Your task to perform on an android device: toggle translation in the chrome app Image 0: 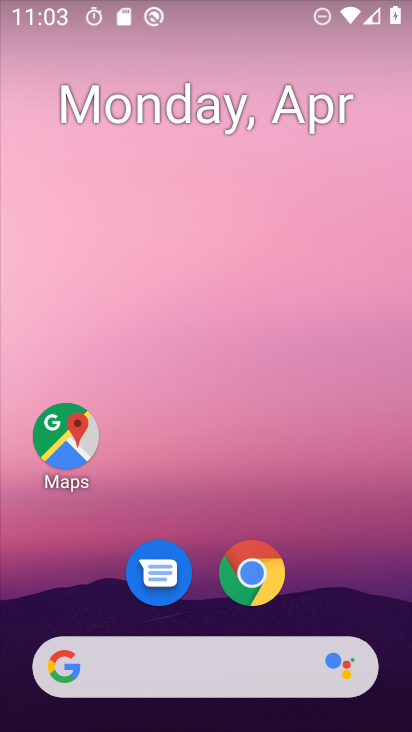
Step 0: drag from (371, 518) to (279, 33)
Your task to perform on an android device: toggle translation in the chrome app Image 1: 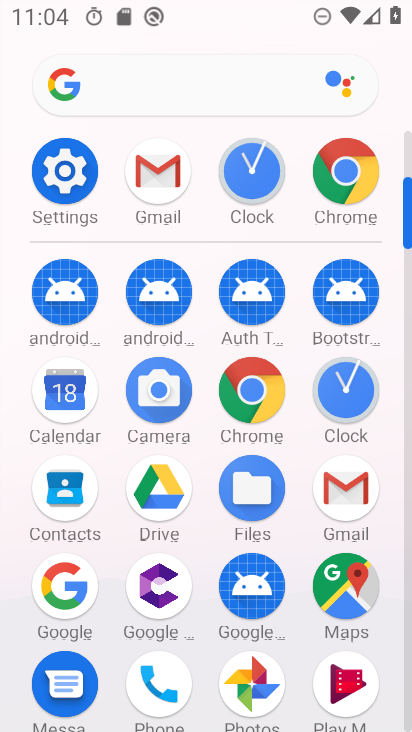
Step 1: click (341, 182)
Your task to perform on an android device: toggle translation in the chrome app Image 2: 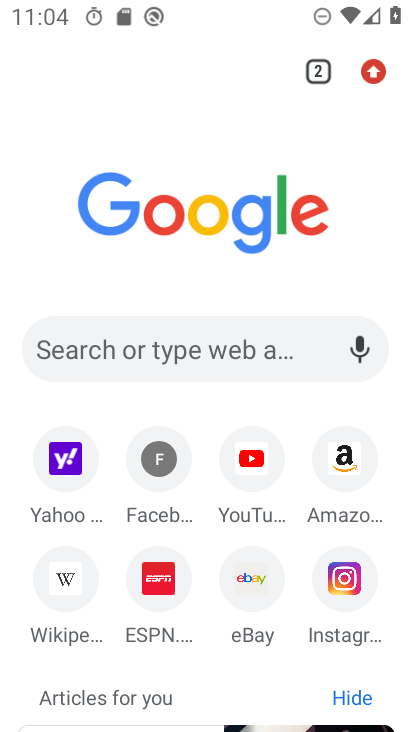
Step 2: click (372, 72)
Your task to perform on an android device: toggle translation in the chrome app Image 3: 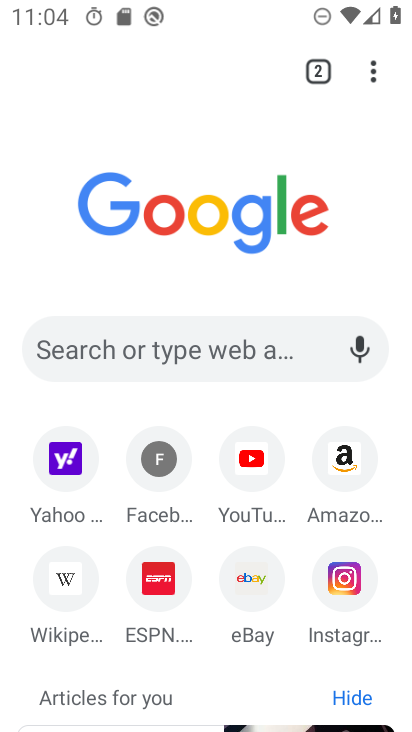
Step 3: click (373, 71)
Your task to perform on an android device: toggle translation in the chrome app Image 4: 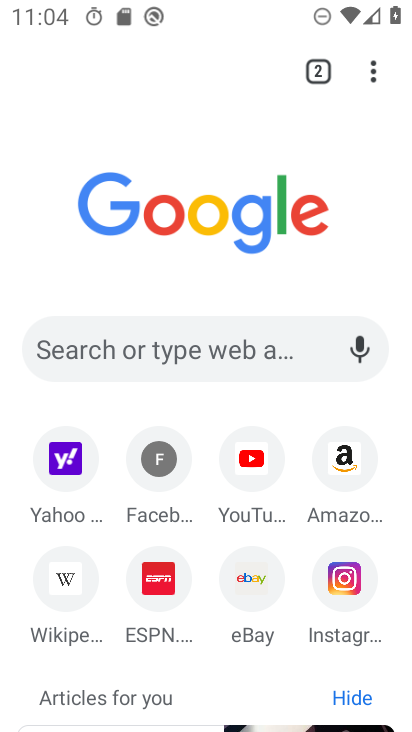
Step 4: click (373, 71)
Your task to perform on an android device: toggle translation in the chrome app Image 5: 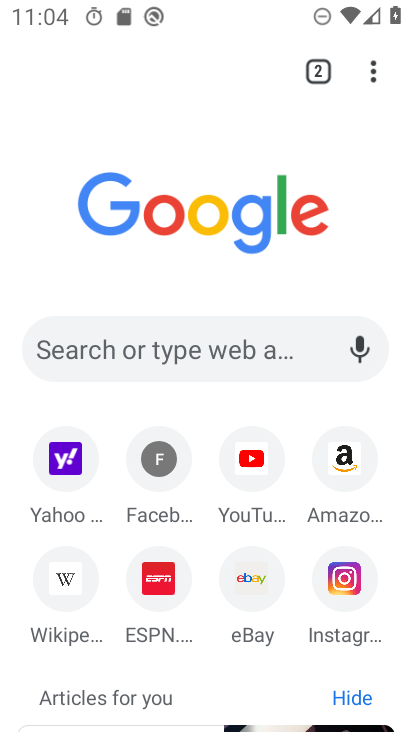
Step 5: click (368, 62)
Your task to perform on an android device: toggle translation in the chrome app Image 6: 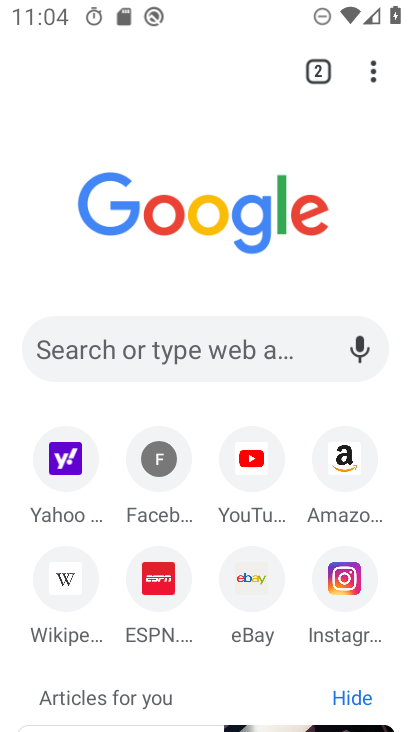
Step 6: click (368, 62)
Your task to perform on an android device: toggle translation in the chrome app Image 7: 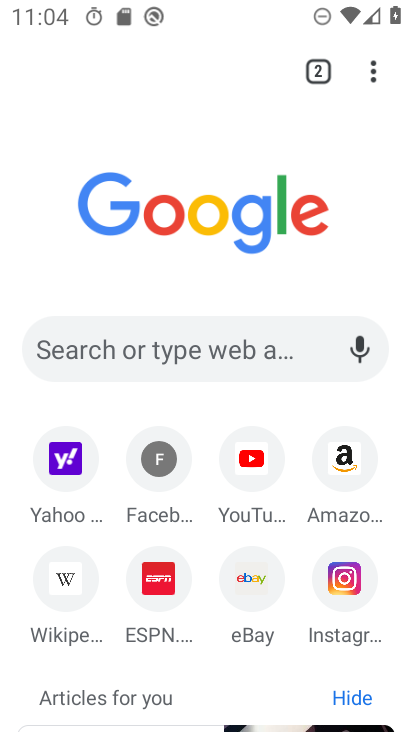
Step 7: click (368, 61)
Your task to perform on an android device: toggle translation in the chrome app Image 8: 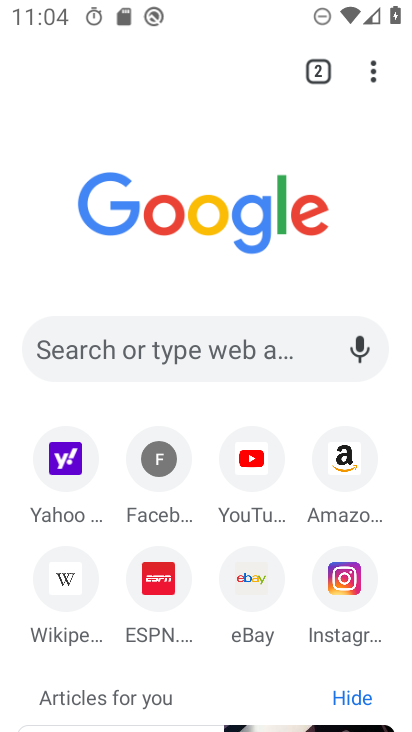
Step 8: click (368, 61)
Your task to perform on an android device: toggle translation in the chrome app Image 9: 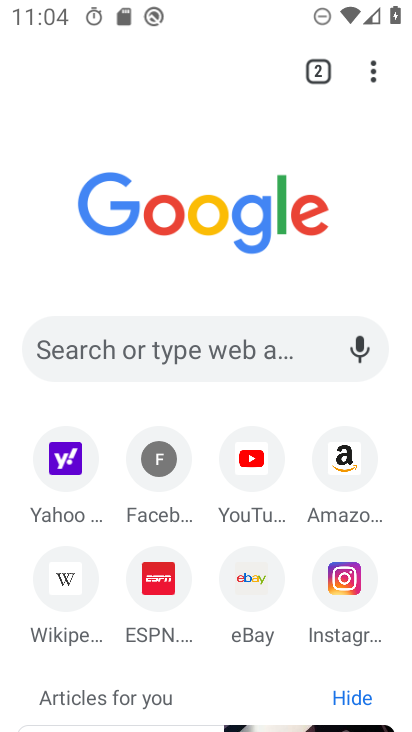
Step 9: click (368, 61)
Your task to perform on an android device: toggle translation in the chrome app Image 10: 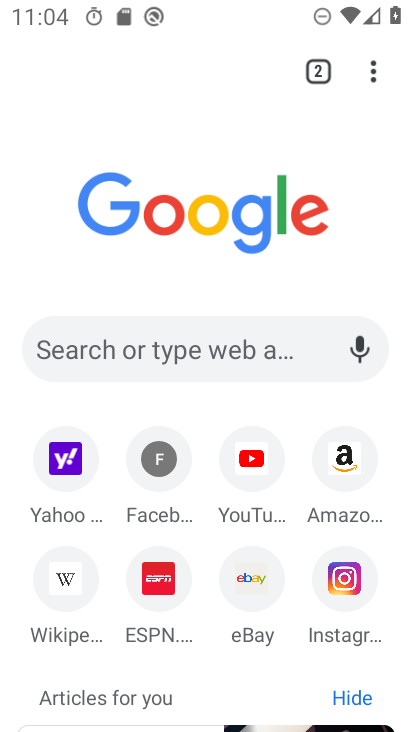
Step 10: click (368, 61)
Your task to perform on an android device: toggle translation in the chrome app Image 11: 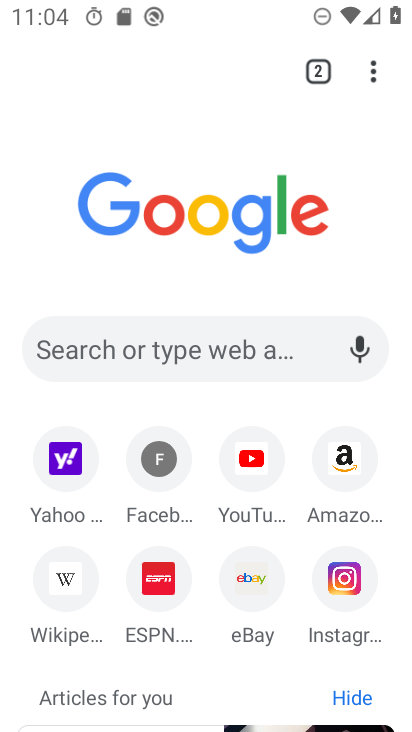
Step 11: drag from (368, 61) to (181, 564)
Your task to perform on an android device: toggle translation in the chrome app Image 12: 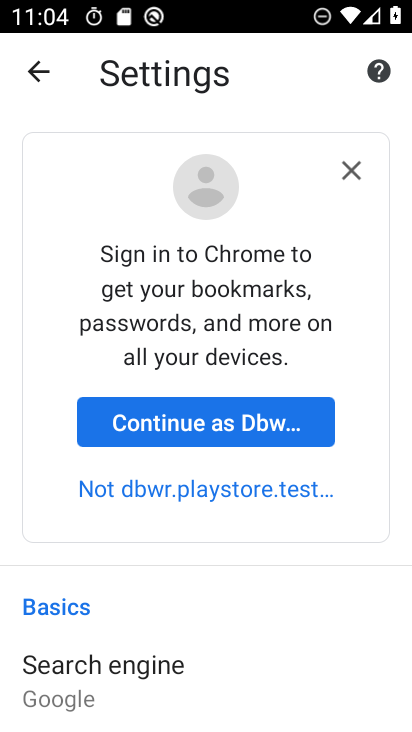
Step 12: drag from (260, 687) to (190, 326)
Your task to perform on an android device: toggle translation in the chrome app Image 13: 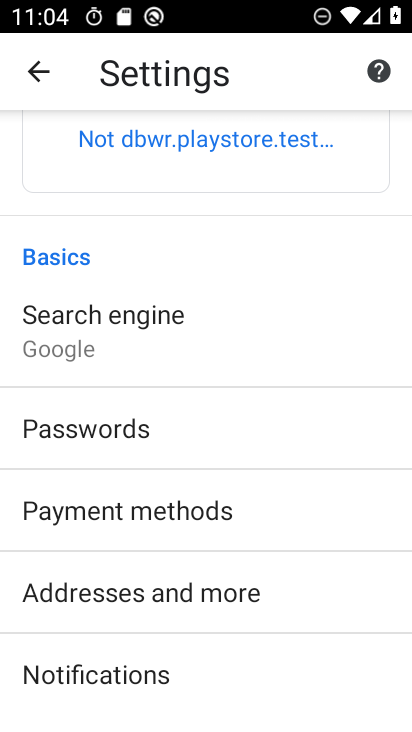
Step 13: drag from (240, 603) to (229, 219)
Your task to perform on an android device: toggle translation in the chrome app Image 14: 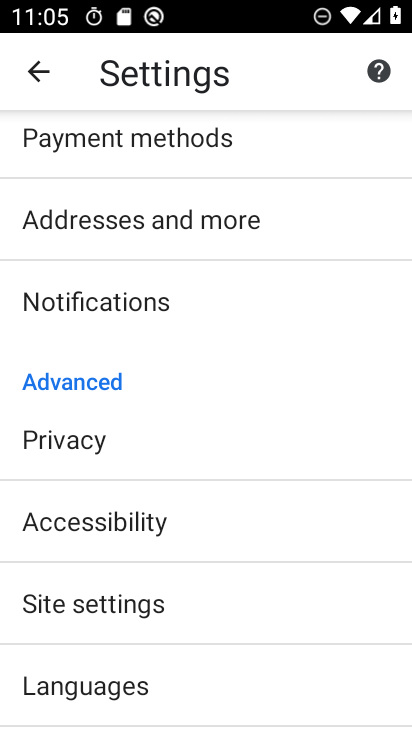
Step 14: drag from (166, 624) to (190, 331)
Your task to perform on an android device: toggle translation in the chrome app Image 15: 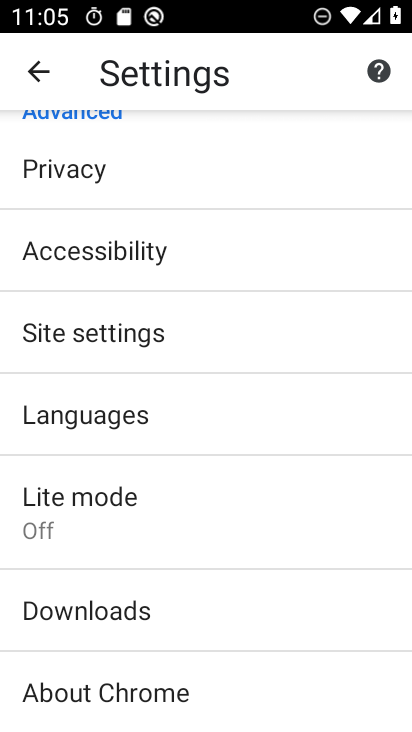
Step 15: click (181, 432)
Your task to perform on an android device: toggle translation in the chrome app Image 16: 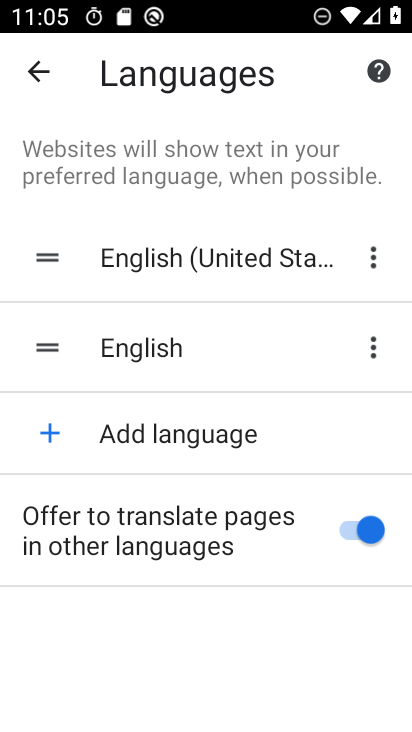
Step 16: click (333, 538)
Your task to perform on an android device: toggle translation in the chrome app Image 17: 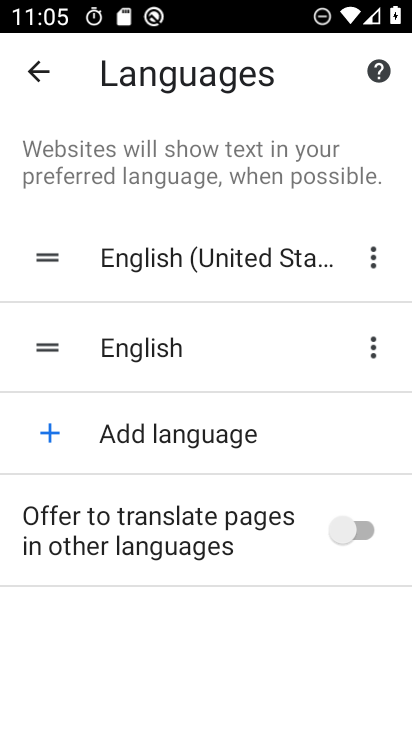
Step 17: task complete